Your task to perform on an android device: Go to eBay Image 0: 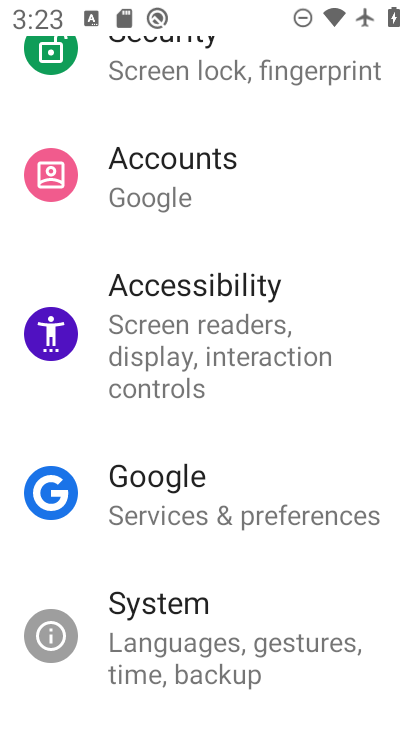
Step 0: press home button
Your task to perform on an android device: Go to eBay Image 1: 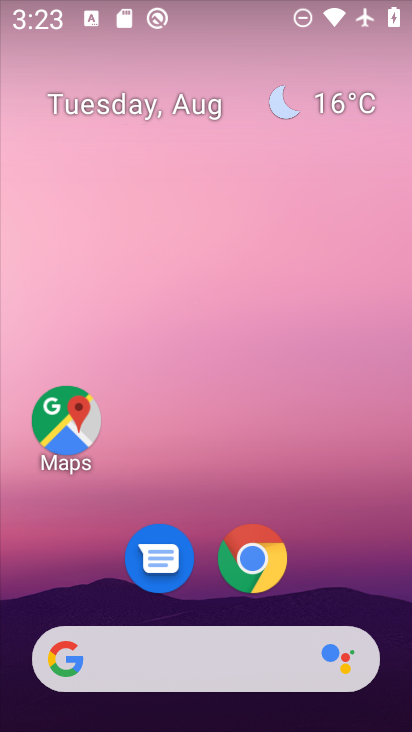
Step 1: click (263, 533)
Your task to perform on an android device: Go to eBay Image 2: 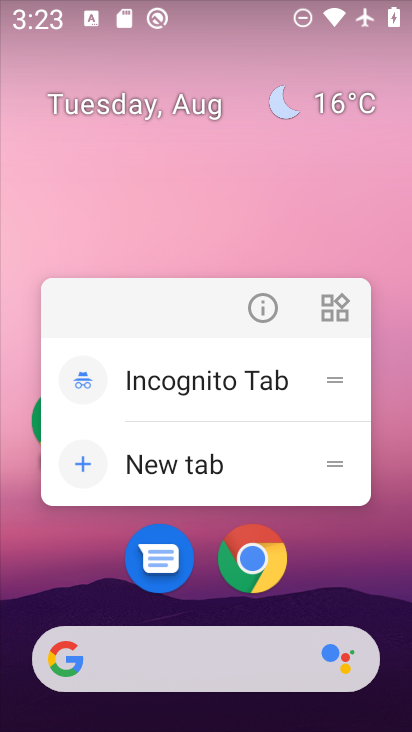
Step 2: click (261, 531)
Your task to perform on an android device: Go to eBay Image 3: 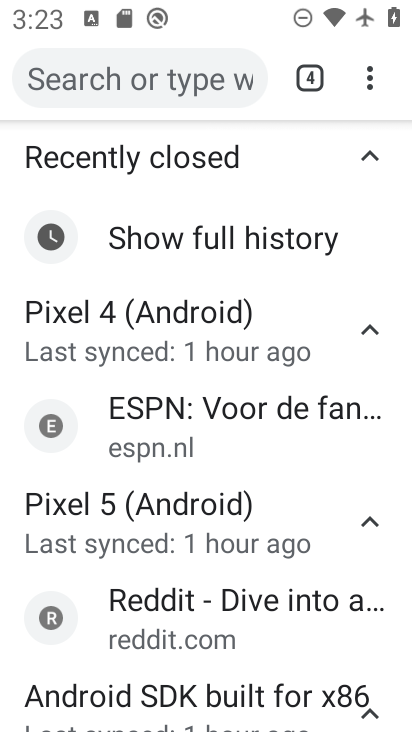
Step 3: click (310, 71)
Your task to perform on an android device: Go to eBay Image 4: 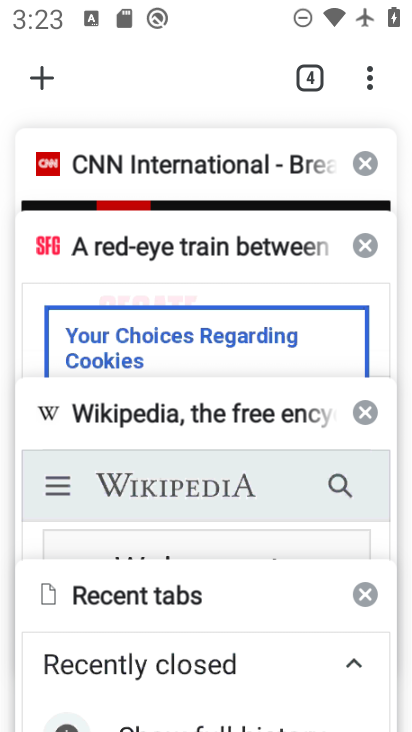
Step 4: click (33, 62)
Your task to perform on an android device: Go to eBay Image 5: 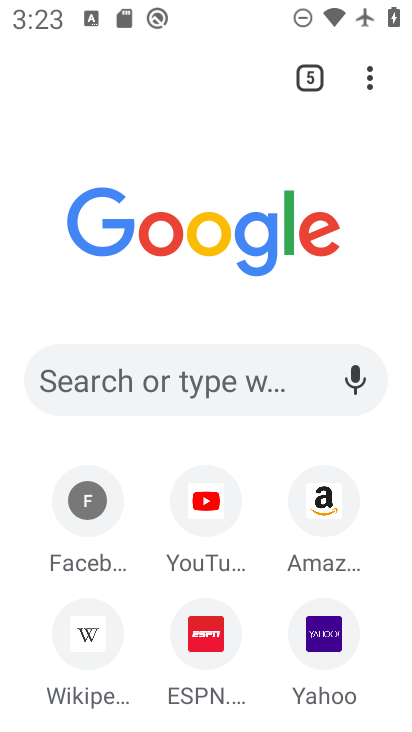
Step 5: click (164, 387)
Your task to perform on an android device: Go to eBay Image 6: 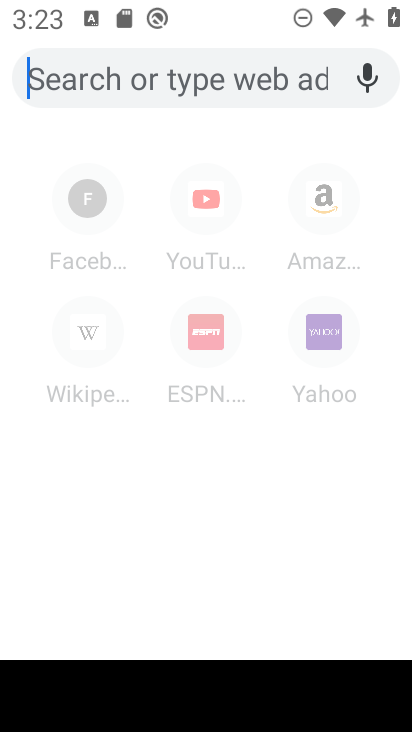
Step 6: type "eBay"
Your task to perform on an android device: Go to eBay Image 7: 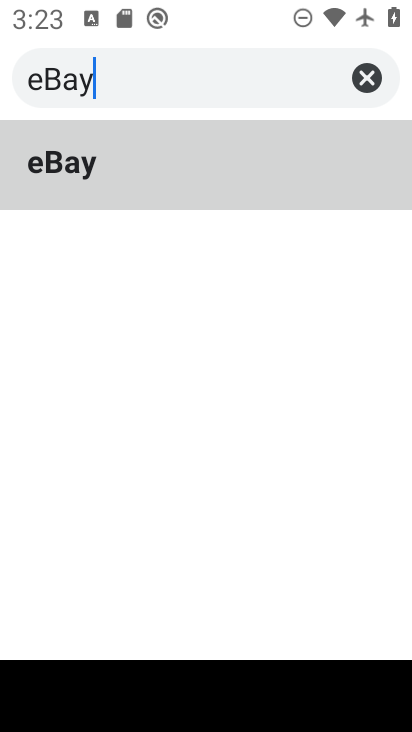
Step 7: type ""
Your task to perform on an android device: Go to eBay Image 8: 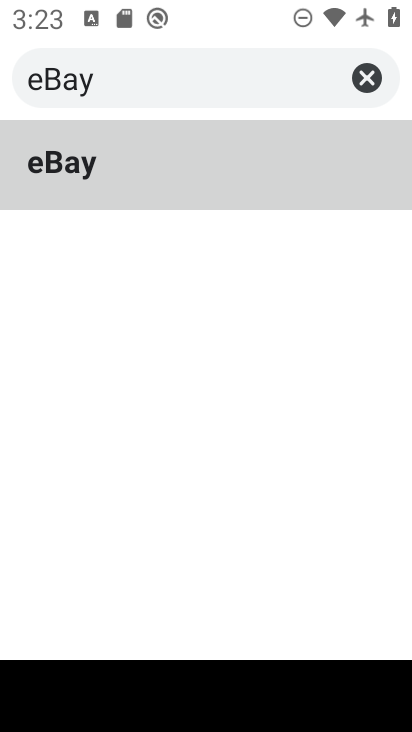
Step 8: click (39, 177)
Your task to perform on an android device: Go to eBay Image 9: 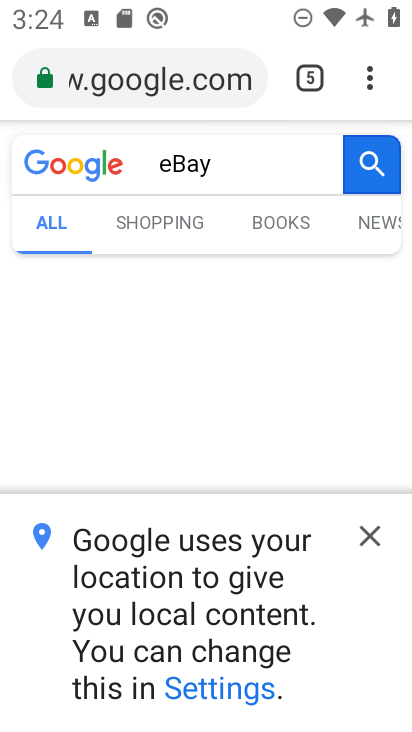
Step 9: click (356, 523)
Your task to perform on an android device: Go to eBay Image 10: 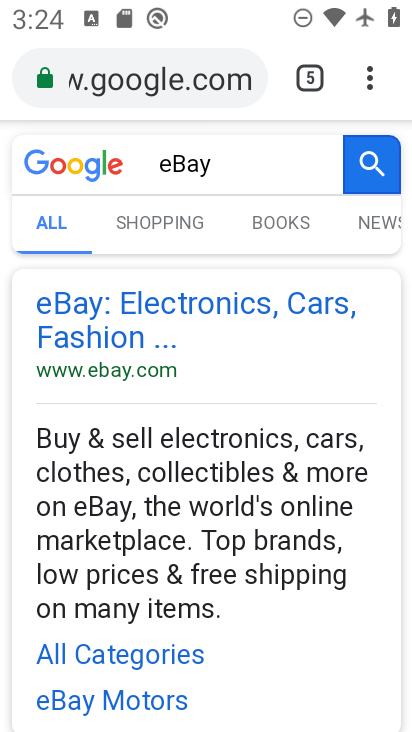
Step 10: click (135, 331)
Your task to perform on an android device: Go to eBay Image 11: 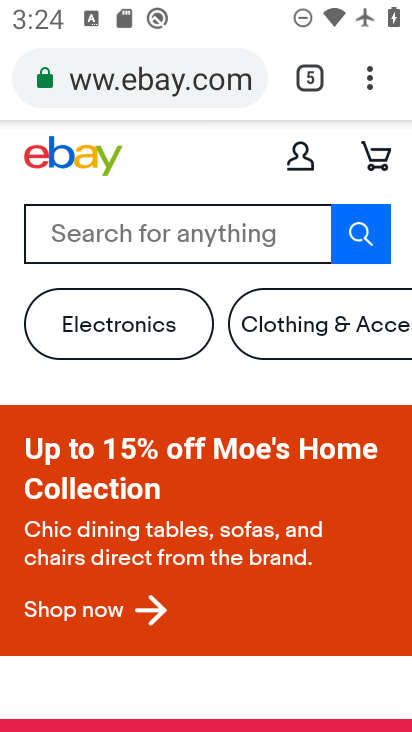
Step 11: task complete